Your task to perform on an android device: Do I have any events tomorrow? Image 0: 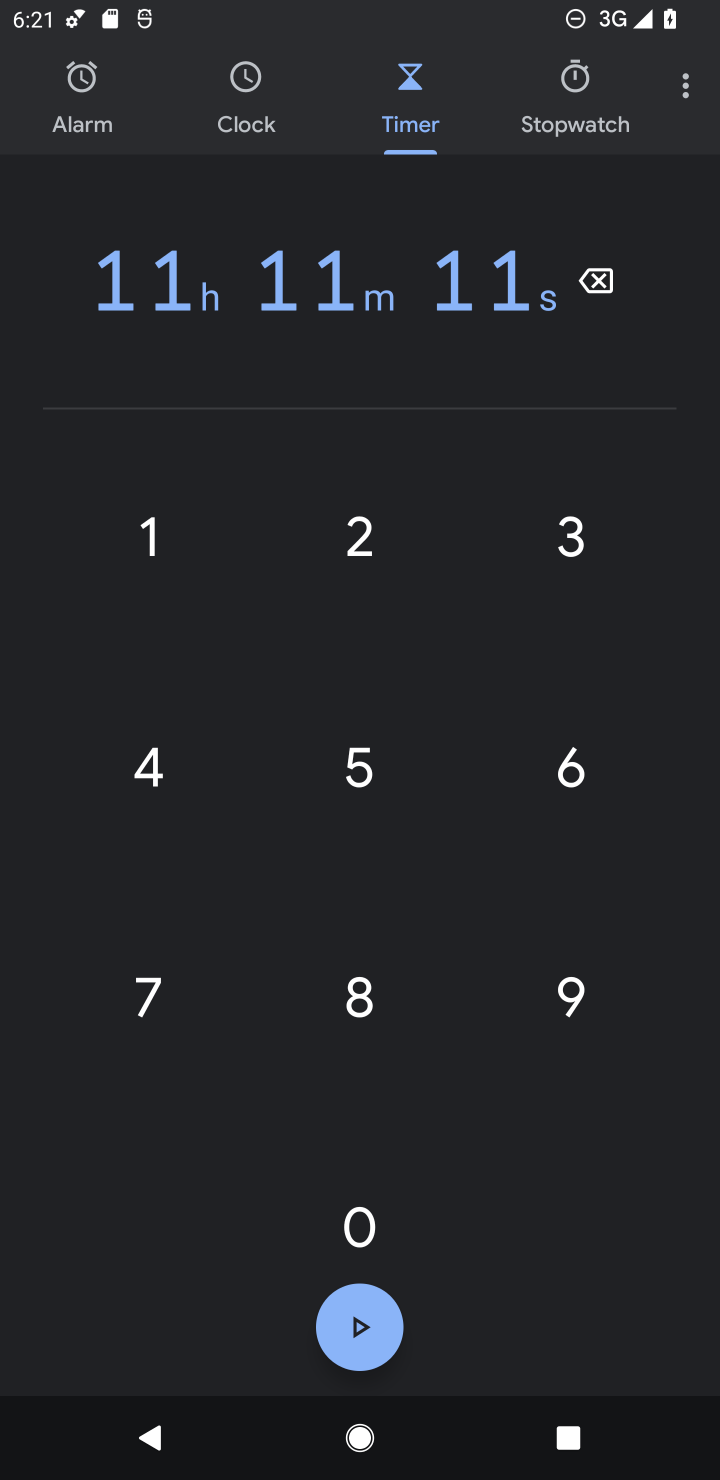
Step 0: press home button
Your task to perform on an android device: Do I have any events tomorrow? Image 1: 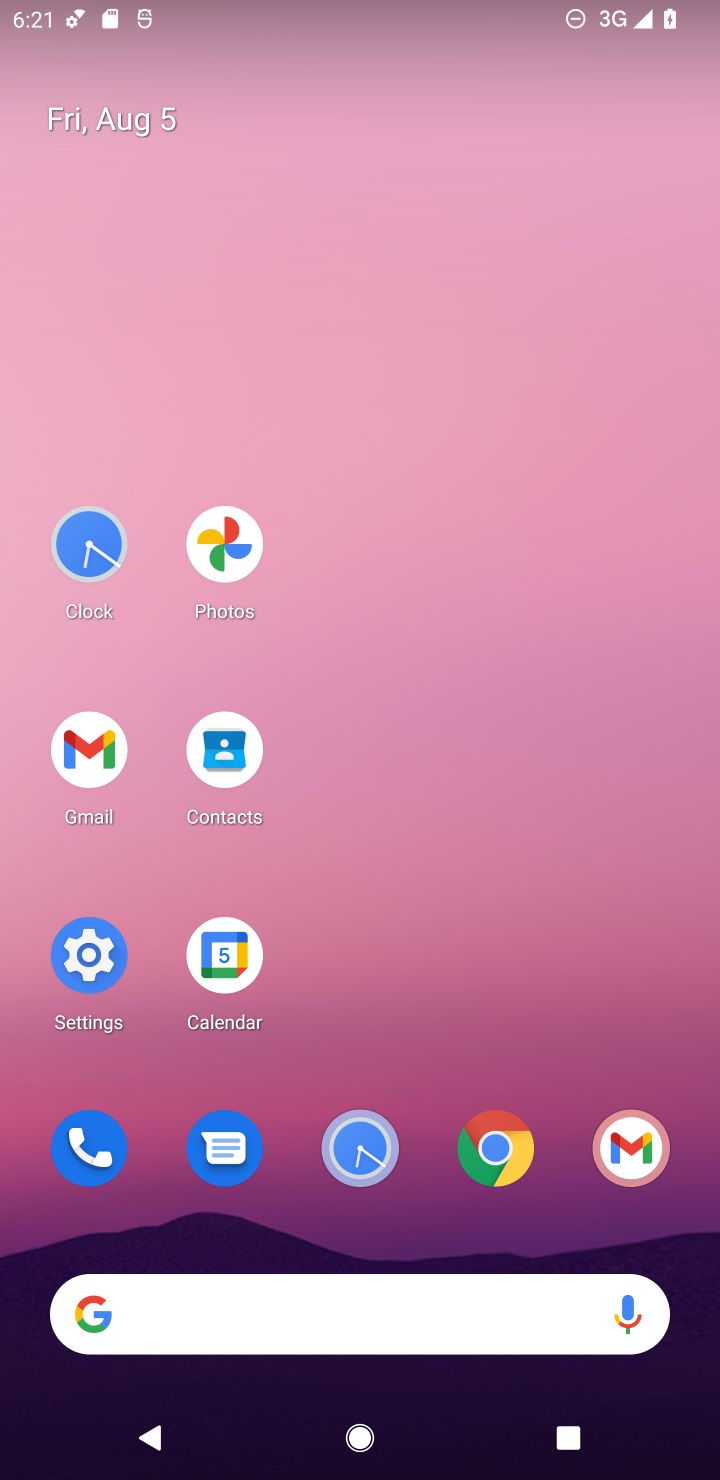
Step 1: click (241, 955)
Your task to perform on an android device: Do I have any events tomorrow? Image 2: 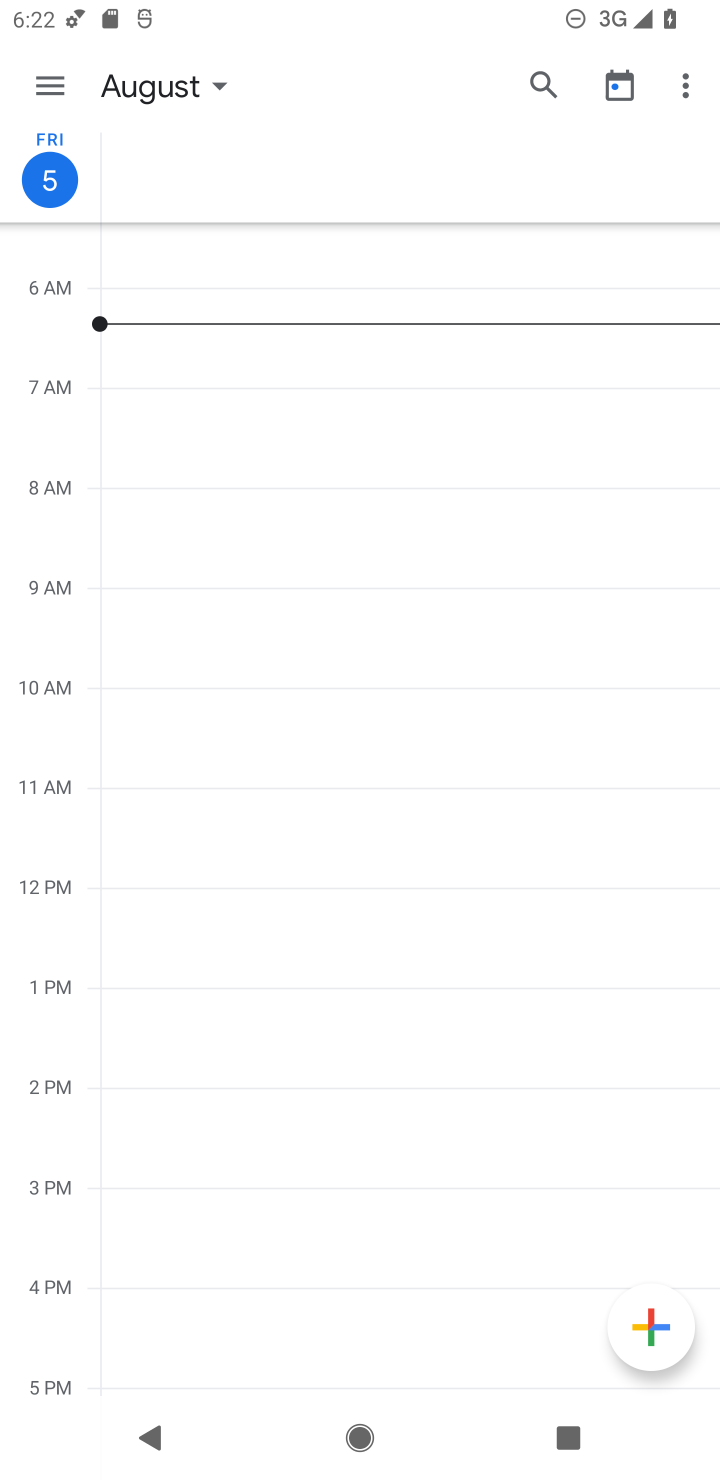
Step 2: click (219, 93)
Your task to perform on an android device: Do I have any events tomorrow? Image 3: 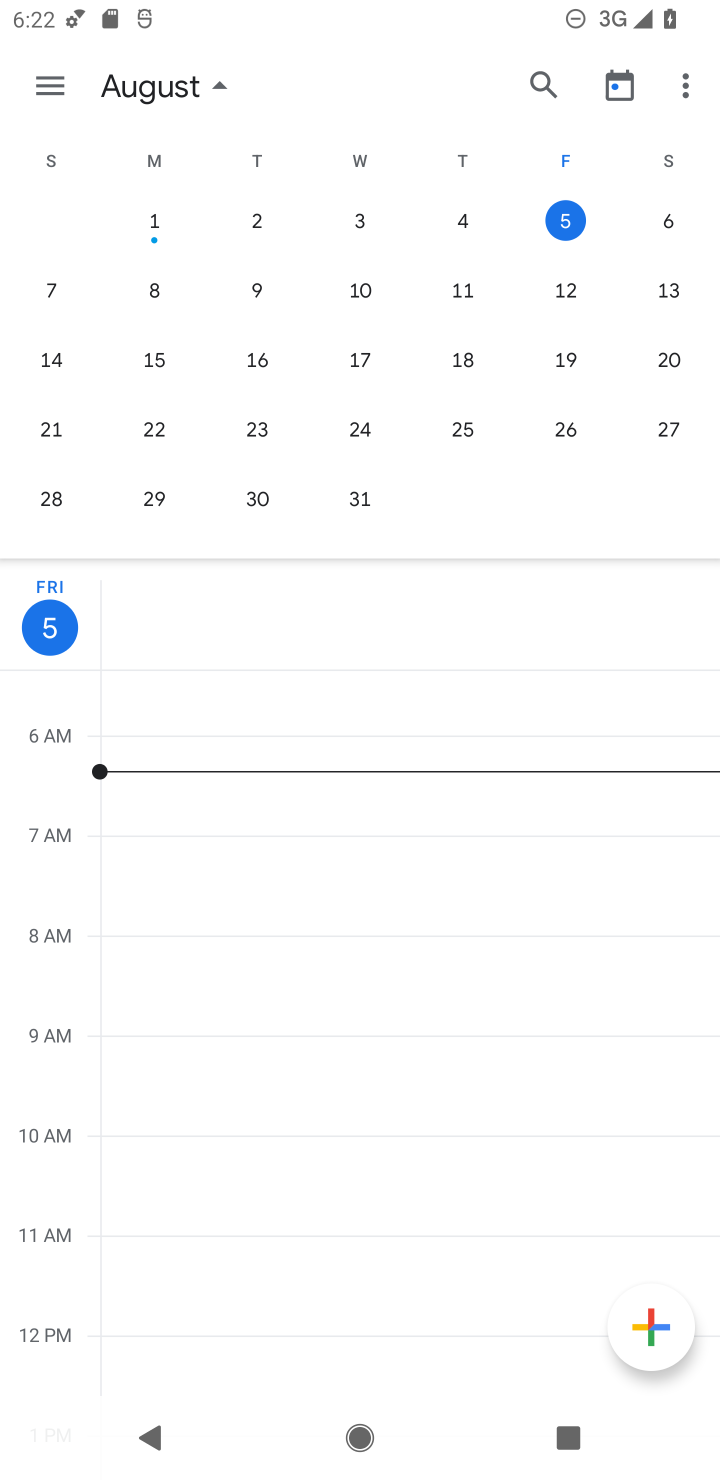
Step 3: click (670, 214)
Your task to perform on an android device: Do I have any events tomorrow? Image 4: 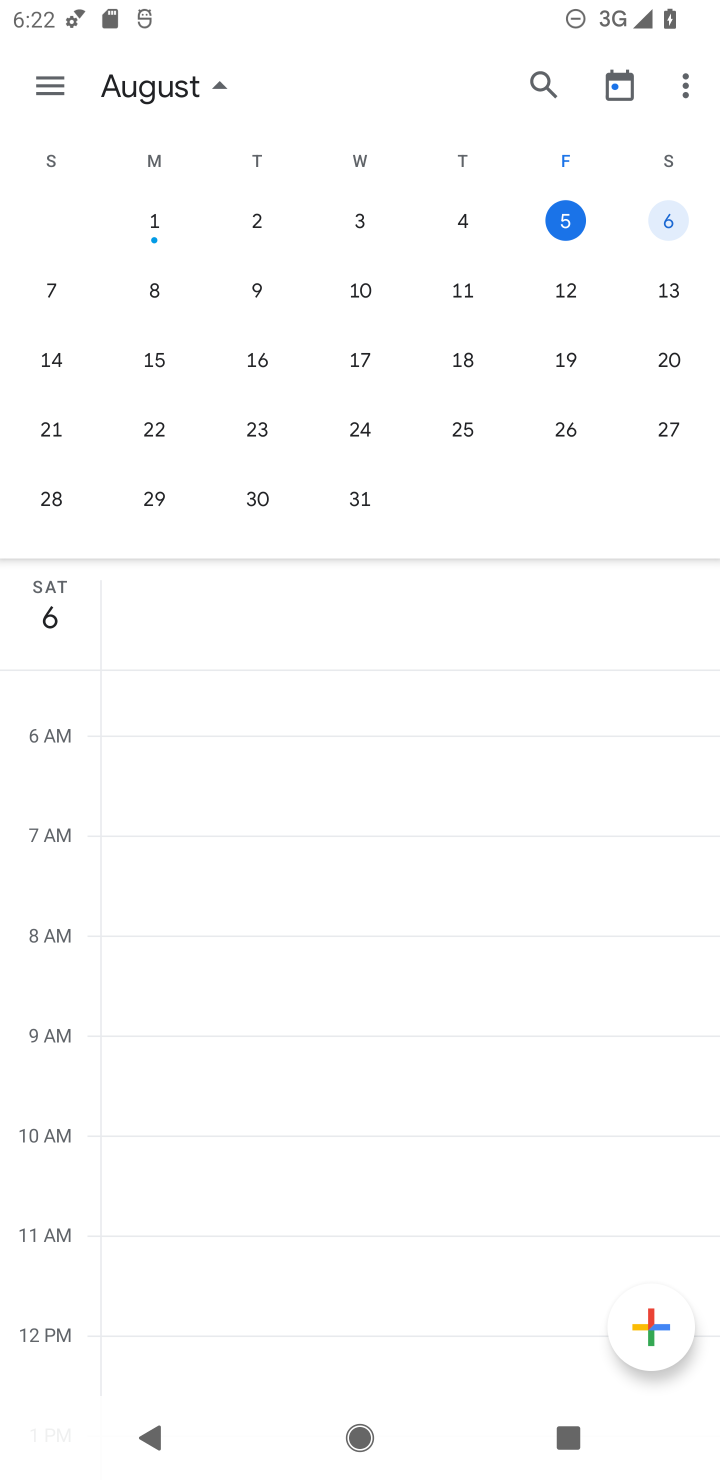
Step 4: click (661, 211)
Your task to perform on an android device: Do I have any events tomorrow? Image 5: 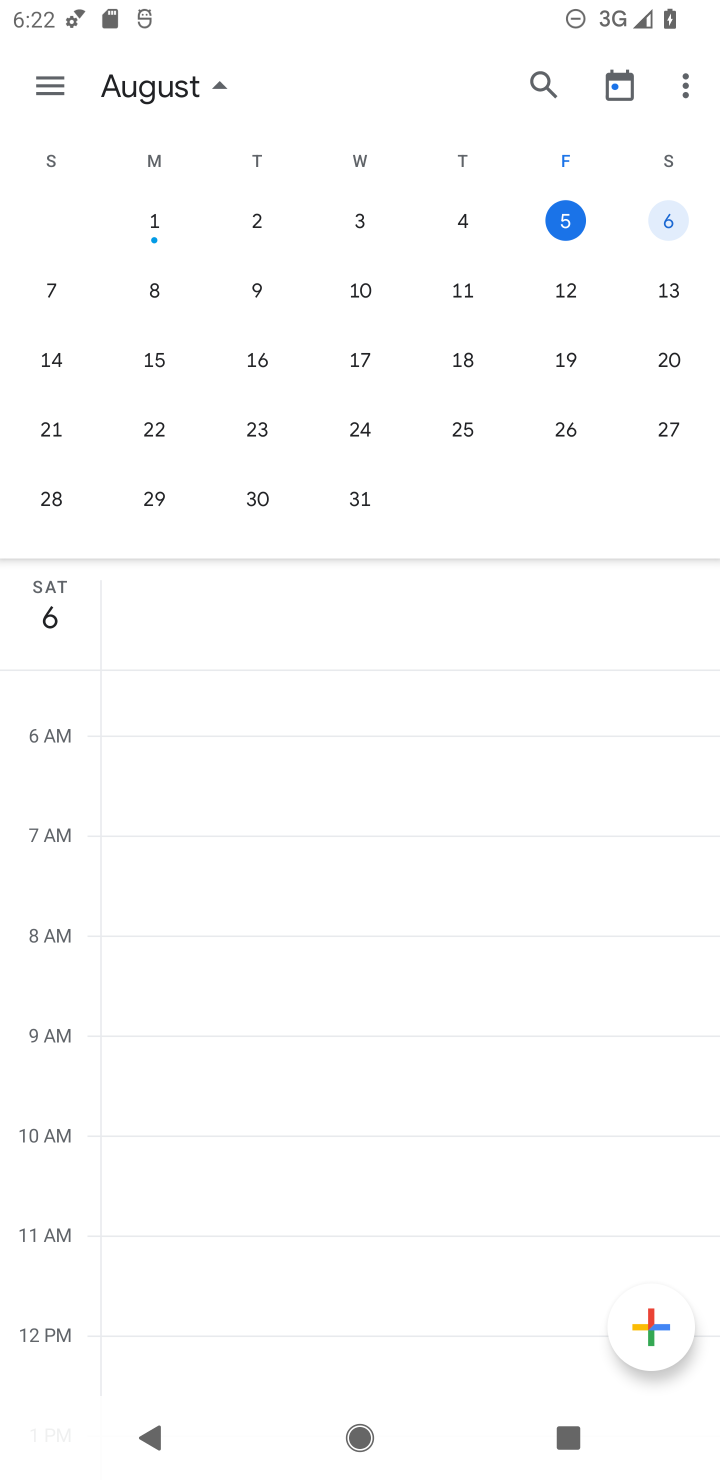
Step 5: task complete